Your task to perform on an android device: turn off javascript in the chrome app Image 0: 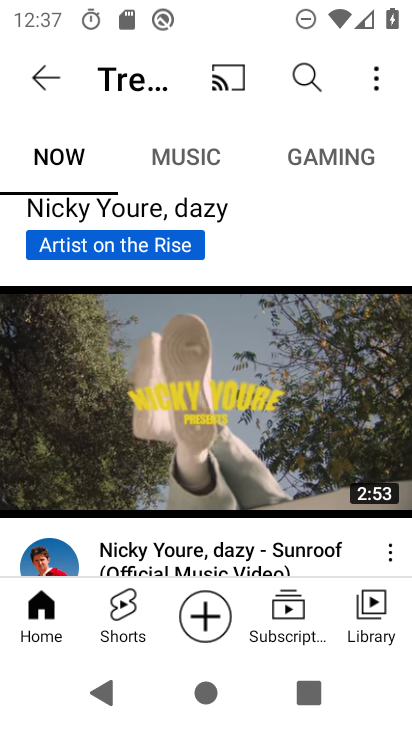
Step 0: press home button
Your task to perform on an android device: turn off javascript in the chrome app Image 1: 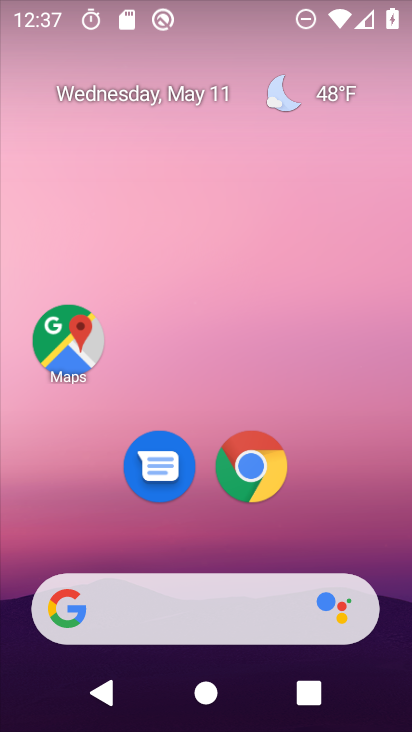
Step 1: drag from (202, 532) to (241, 30)
Your task to perform on an android device: turn off javascript in the chrome app Image 2: 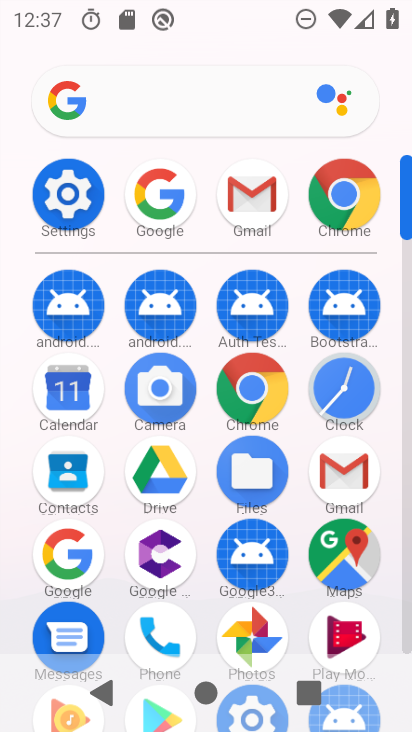
Step 2: click (246, 381)
Your task to perform on an android device: turn off javascript in the chrome app Image 3: 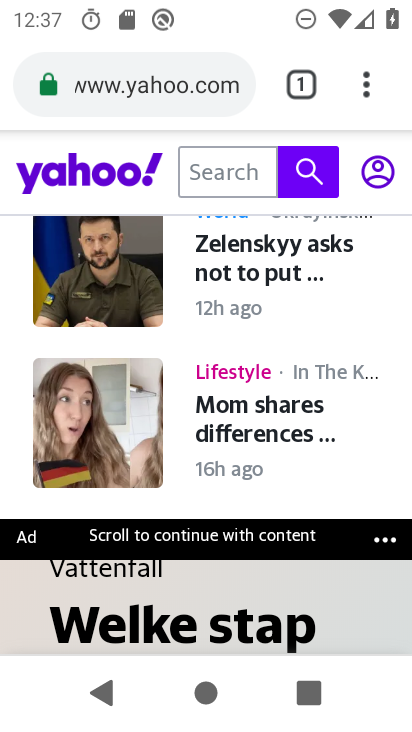
Step 3: click (361, 86)
Your task to perform on an android device: turn off javascript in the chrome app Image 4: 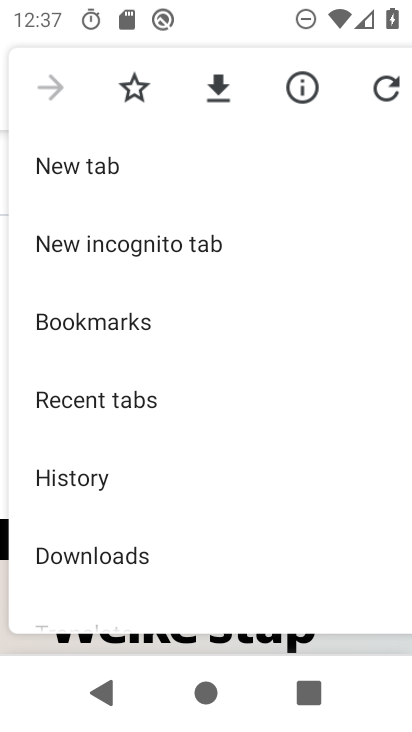
Step 4: drag from (170, 539) to (197, 49)
Your task to perform on an android device: turn off javascript in the chrome app Image 5: 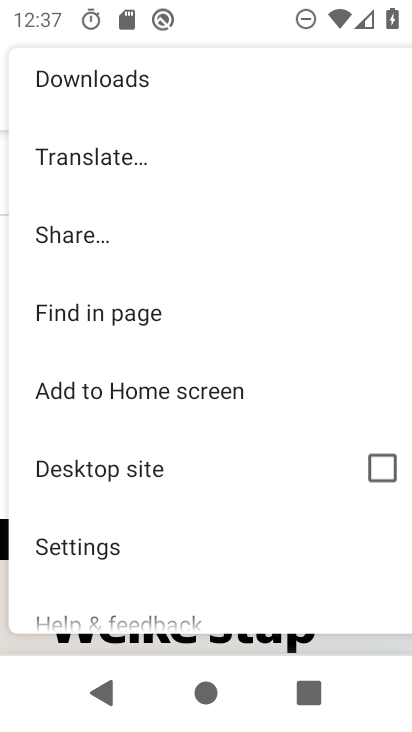
Step 5: drag from (187, 513) to (225, 95)
Your task to perform on an android device: turn off javascript in the chrome app Image 6: 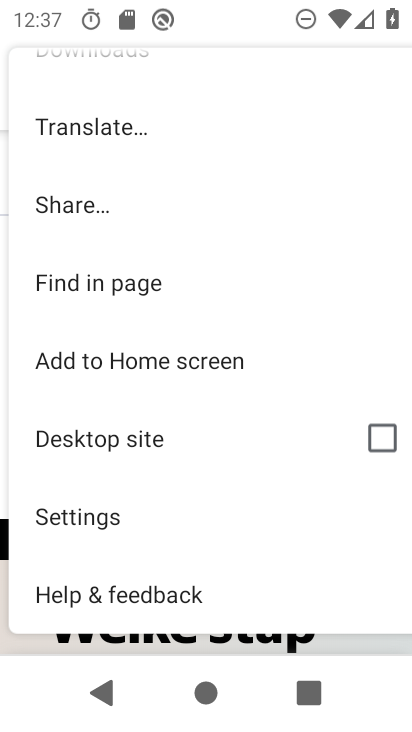
Step 6: click (133, 513)
Your task to perform on an android device: turn off javascript in the chrome app Image 7: 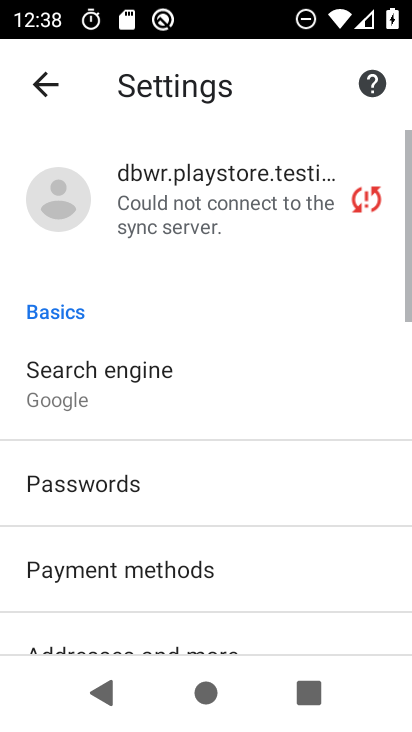
Step 7: drag from (221, 583) to (255, 162)
Your task to perform on an android device: turn off javascript in the chrome app Image 8: 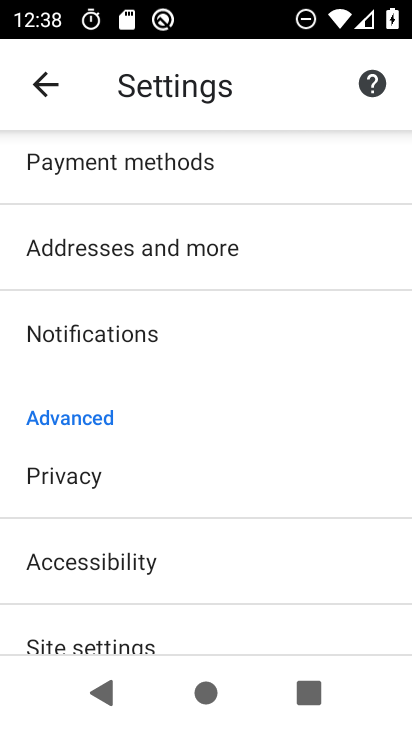
Step 8: drag from (188, 566) to (245, 120)
Your task to perform on an android device: turn off javascript in the chrome app Image 9: 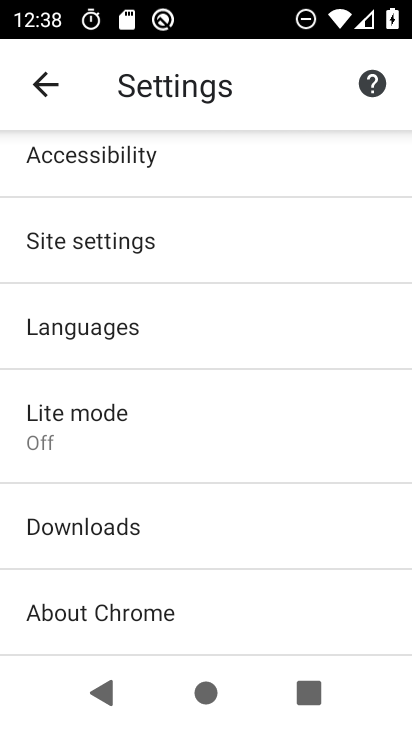
Step 9: click (181, 240)
Your task to perform on an android device: turn off javascript in the chrome app Image 10: 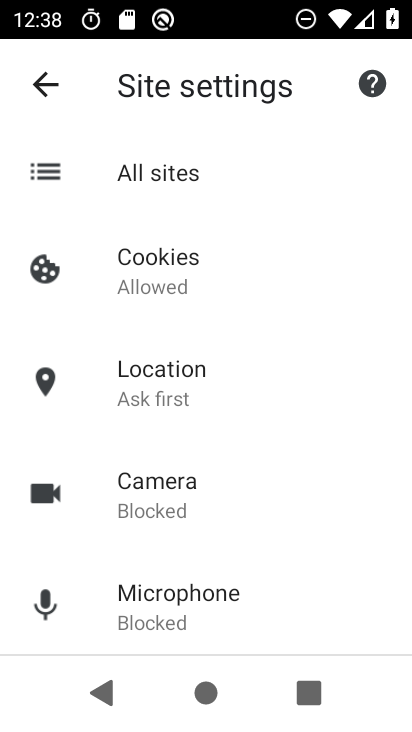
Step 10: drag from (241, 607) to (270, 107)
Your task to perform on an android device: turn off javascript in the chrome app Image 11: 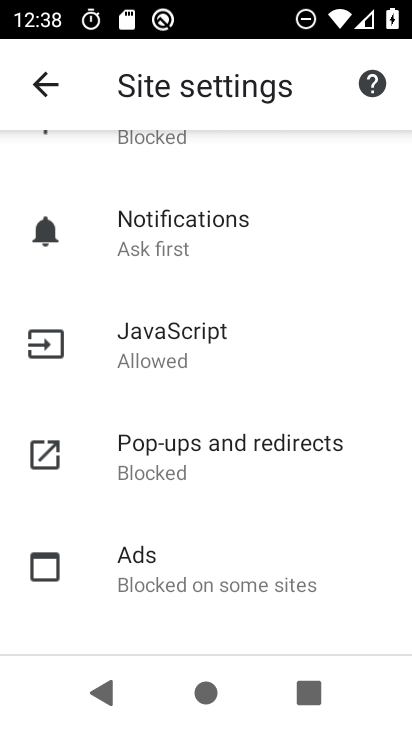
Step 11: click (102, 337)
Your task to perform on an android device: turn off javascript in the chrome app Image 12: 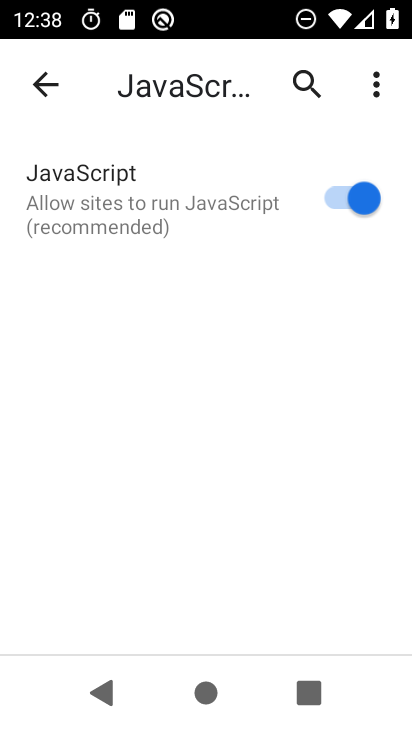
Step 12: click (339, 189)
Your task to perform on an android device: turn off javascript in the chrome app Image 13: 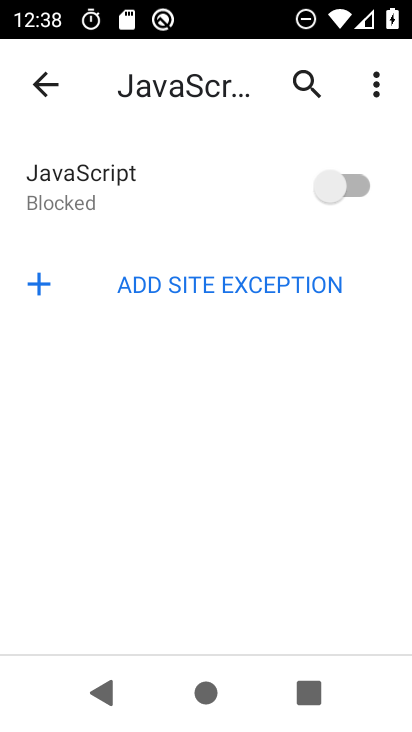
Step 13: task complete